Your task to perform on an android device: Open a new tab in Chrome Image 0: 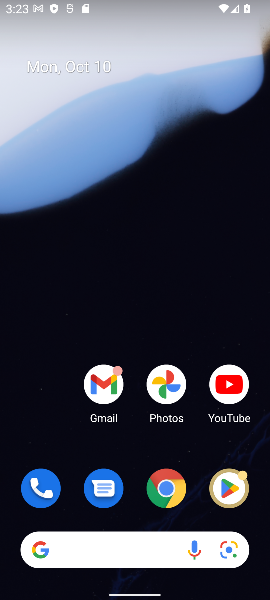
Step 0: click (163, 496)
Your task to perform on an android device: Open a new tab in Chrome Image 1: 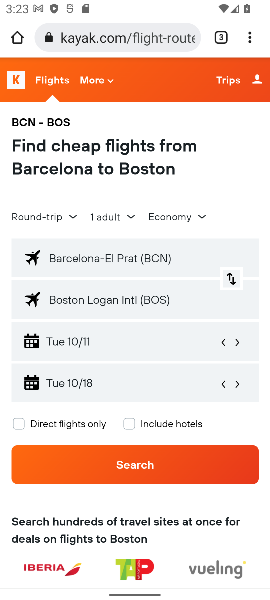
Step 1: click (225, 35)
Your task to perform on an android device: Open a new tab in Chrome Image 2: 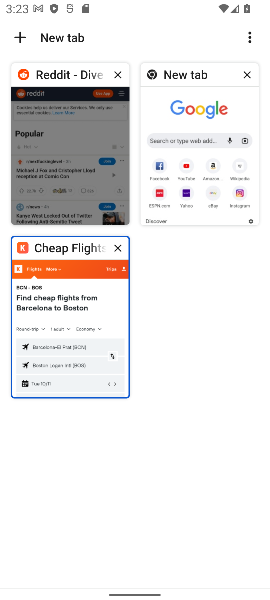
Step 2: click (27, 32)
Your task to perform on an android device: Open a new tab in Chrome Image 3: 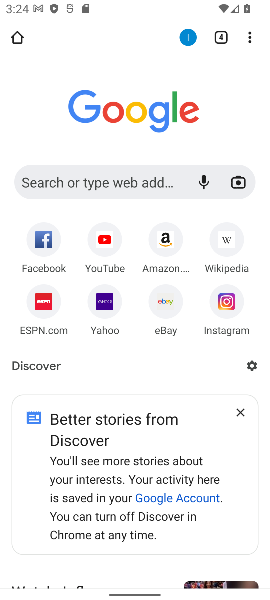
Step 3: task complete